Your task to perform on an android device: set default search engine in the chrome app Image 0: 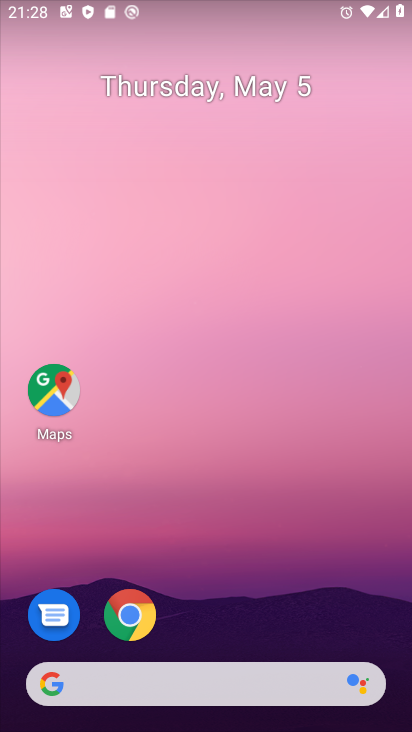
Step 0: click (133, 611)
Your task to perform on an android device: set default search engine in the chrome app Image 1: 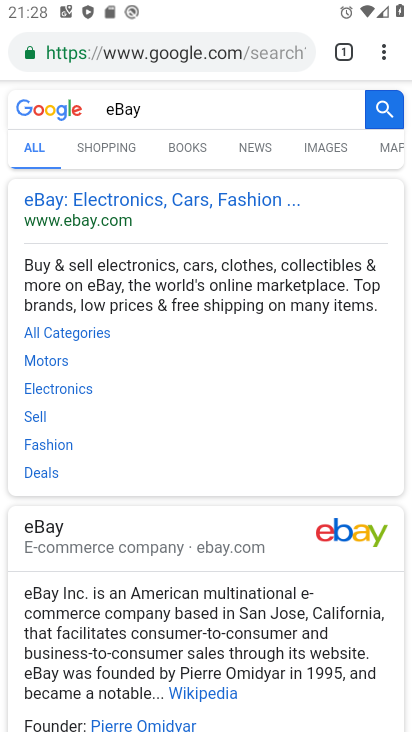
Step 1: click (382, 58)
Your task to perform on an android device: set default search engine in the chrome app Image 2: 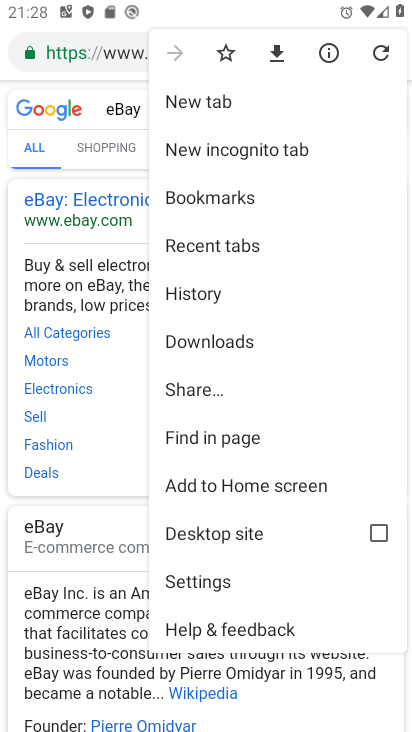
Step 2: click (213, 586)
Your task to perform on an android device: set default search engine in the chrome app Image 3: 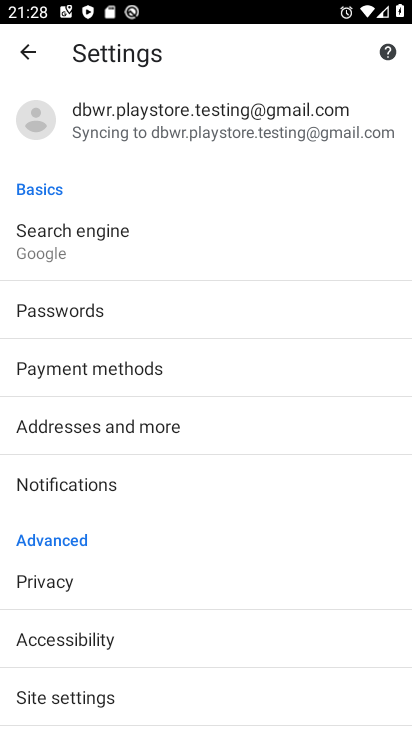
Step 3: click (127, 263)
Your task to perform on an android device: set default search engine in the chrome app Image 4: 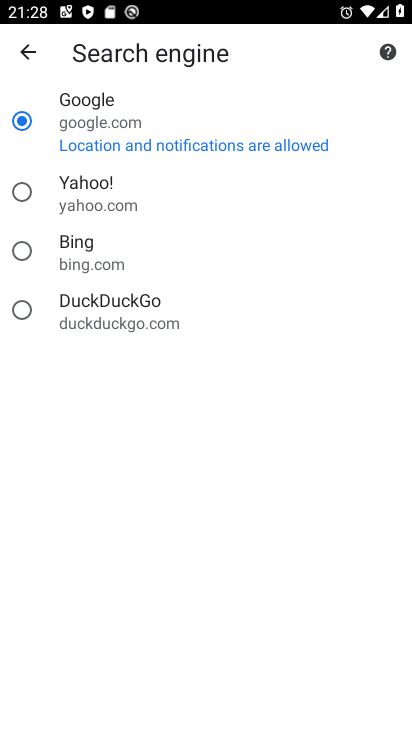
Step 4: click (29, 201)
Your task to perform on an android device: set default search engine in the chrome app Image 5: 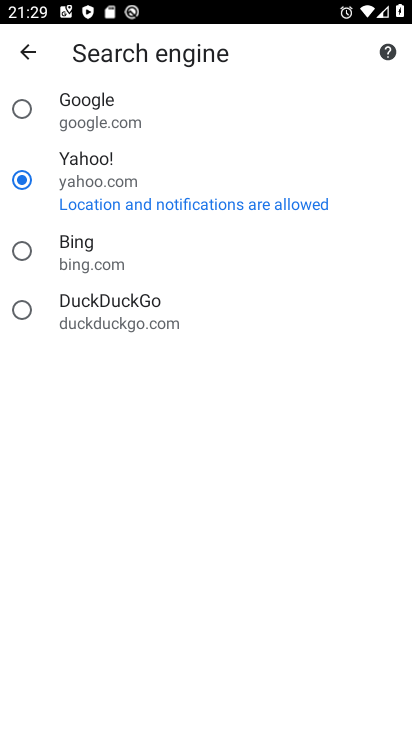
Step 5: task complete